Your task to perform on an android device: turn pop-ups off in chrome Image 0: 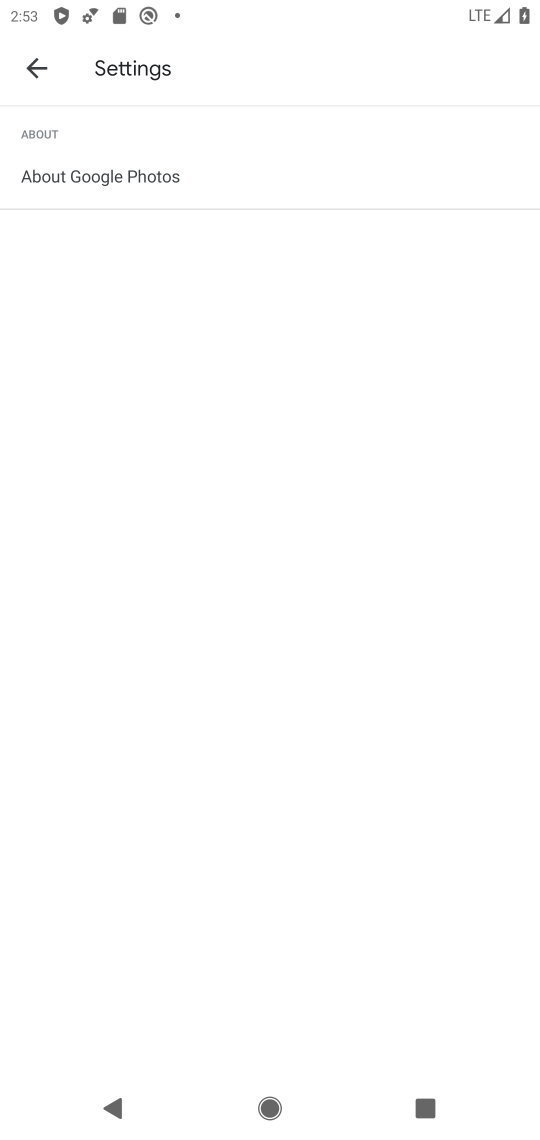
Step 0: press home button
Your task to perform on an android device: turn pop-ups off in chrome Image 1: 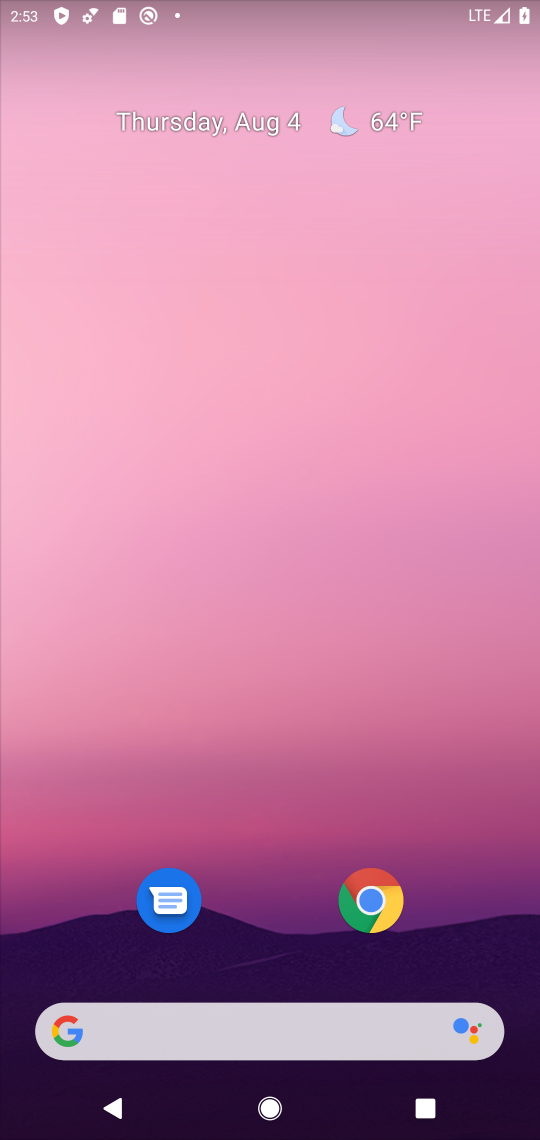
Step 1: drag from (469, 950) to (334, 97)
Your task to perform on an android device: turn pop-ups off in chrome Image 2: 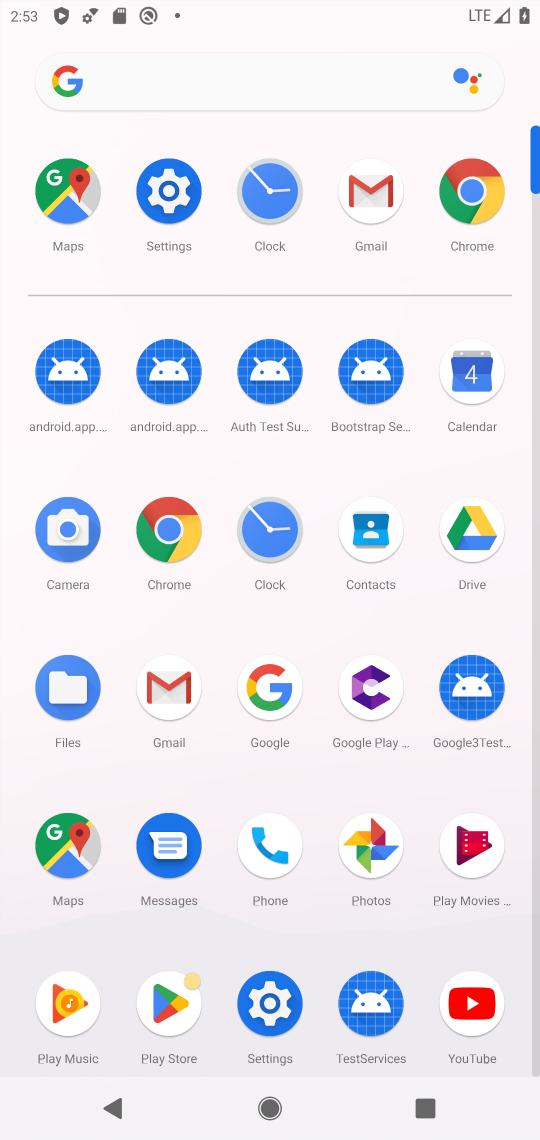
Step 2: click (473, 212)
Your task to perform on an android device: turn pop-ups off in chrome Image 3: 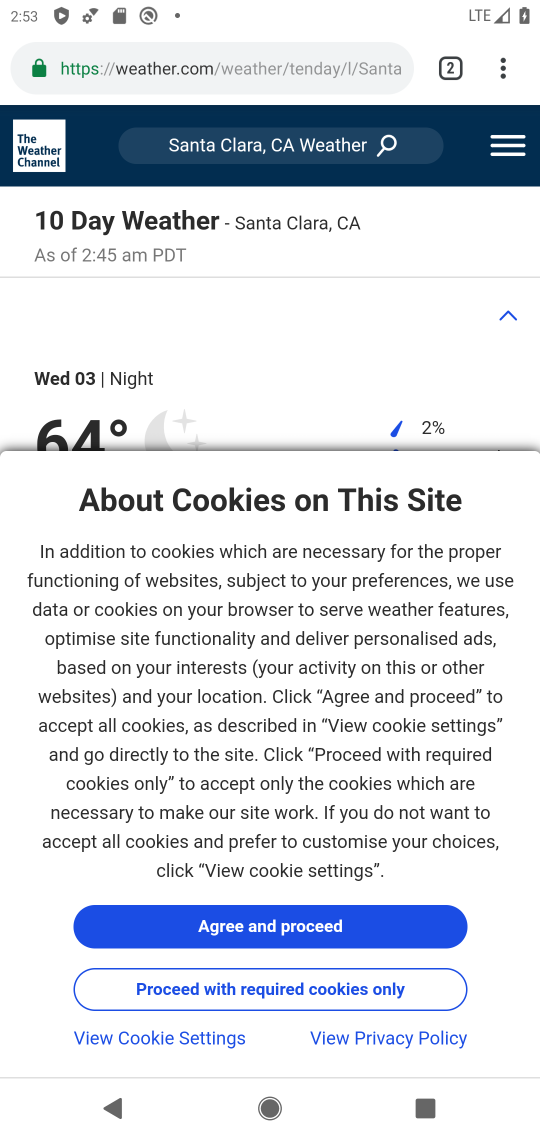
Step 3: click (492, 83)
Your task to perform on an android device: turn pop-ups off in chrome Image 4: 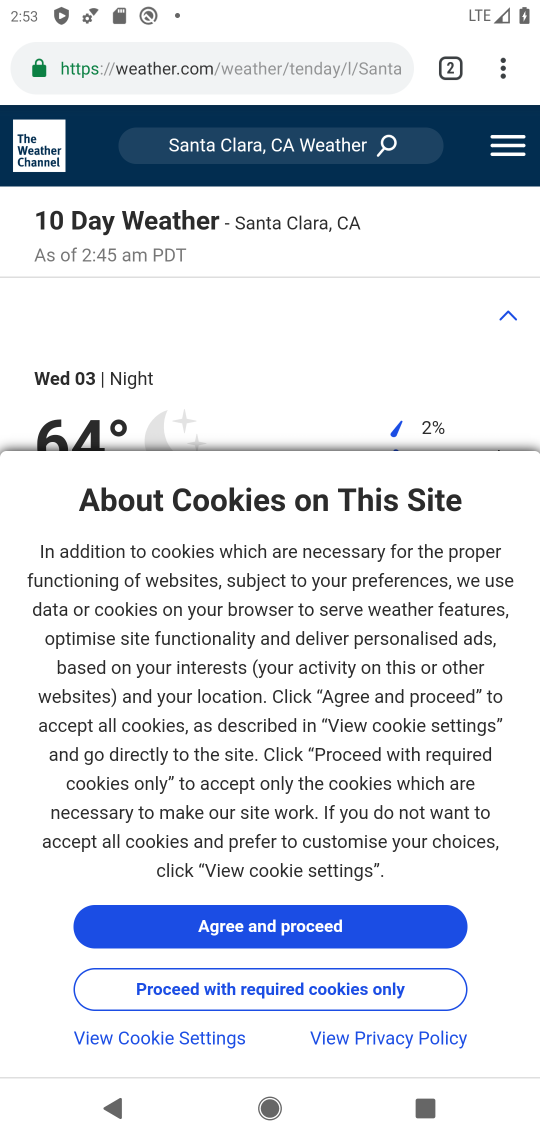
Step 4: click (492, 83)
Your task to perform on an android device: turn pop-ups off in chrome Image 5: 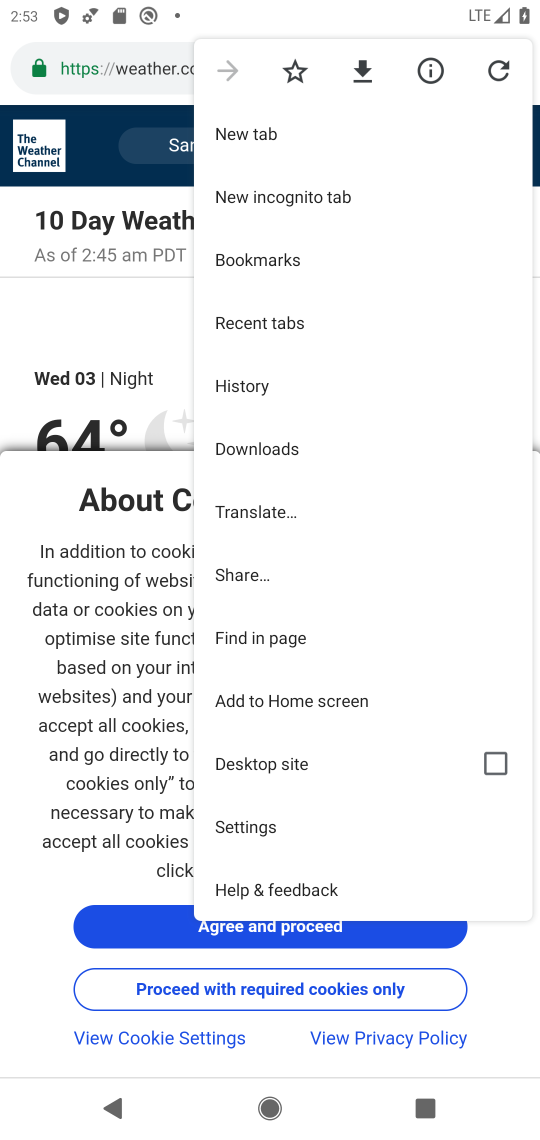
Step 5: click (252, 824)
Your task to perform on an android device: turn pop-ups off in chrome Image 6: 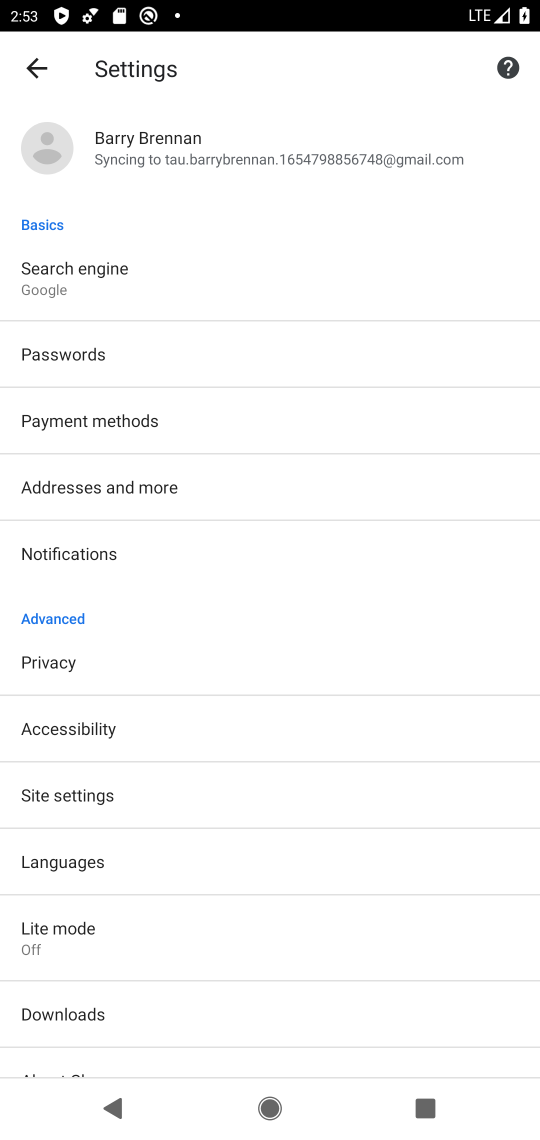
Step 6: click (212, 805)
Your task to perform on an android device: turn pop-ups off in chrome Image 7: 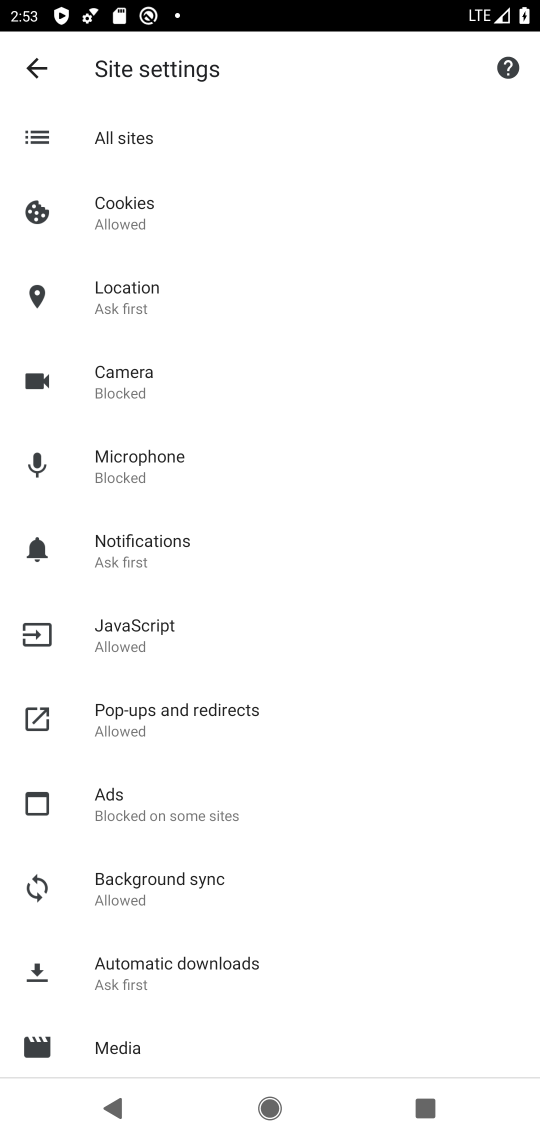
Step 7: click (214, 715)
Your task to perform on an android device: turn pop-ups off in chrome Image 8: 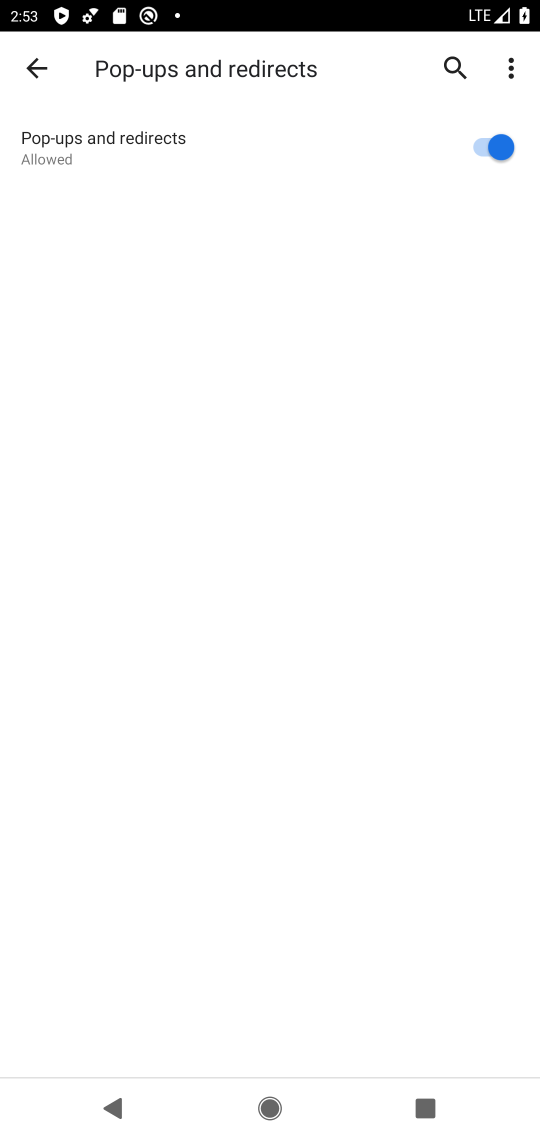
Step 8: click (495, 150)
Your task to perform on an android device: turn pop-ups off in chrome Image 9: 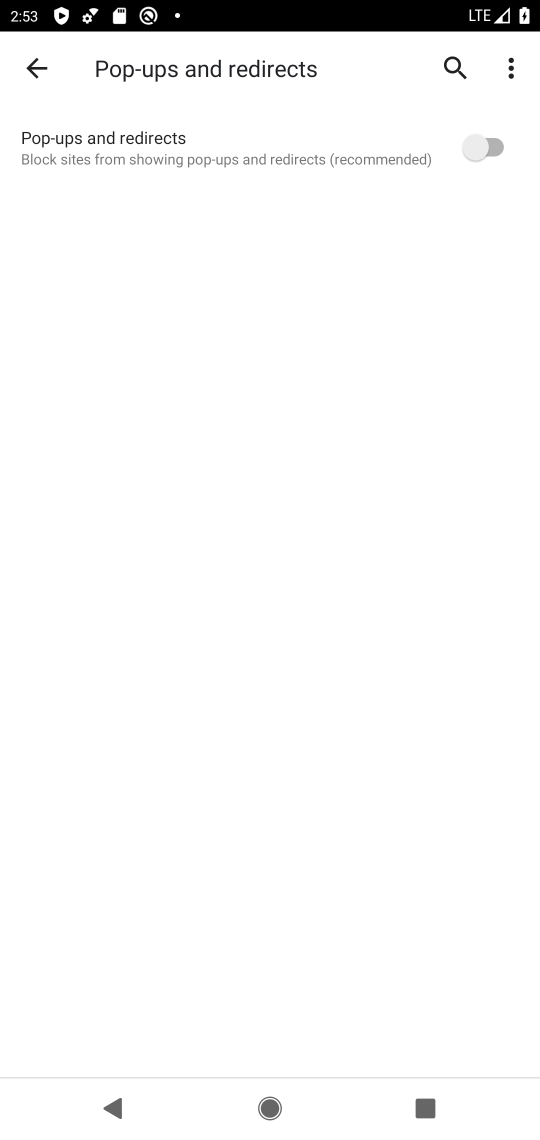
Step 9: task complete